Your task to perform on an android device: What's on my calendar today? Image 0: 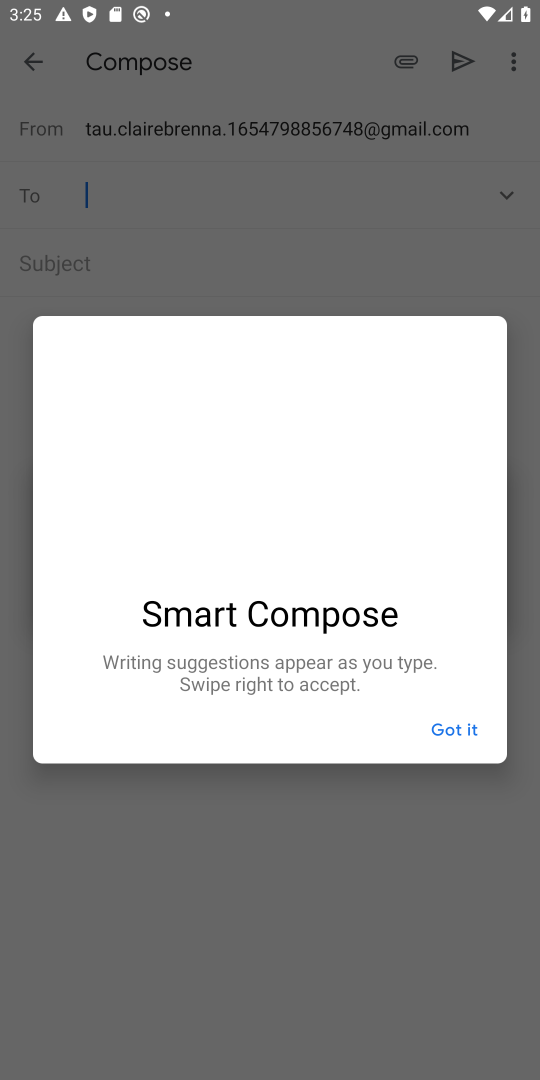
Step 0: press back button
Your task to perform on an android device: What's on my calendar today? Image 1: 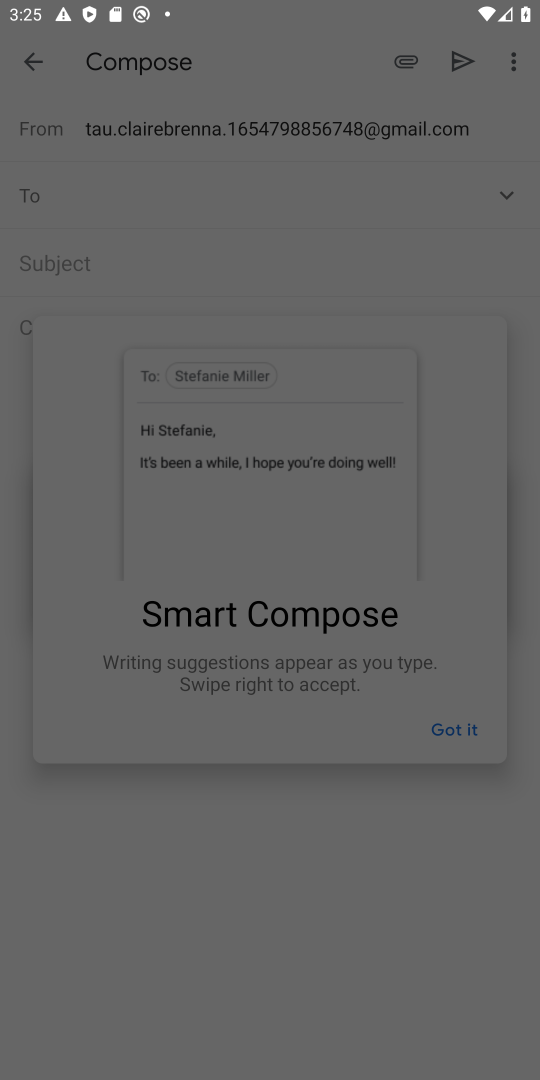
Step 1: press home button
Your task to perform on an android device: What's on my calendar today? Image 2: 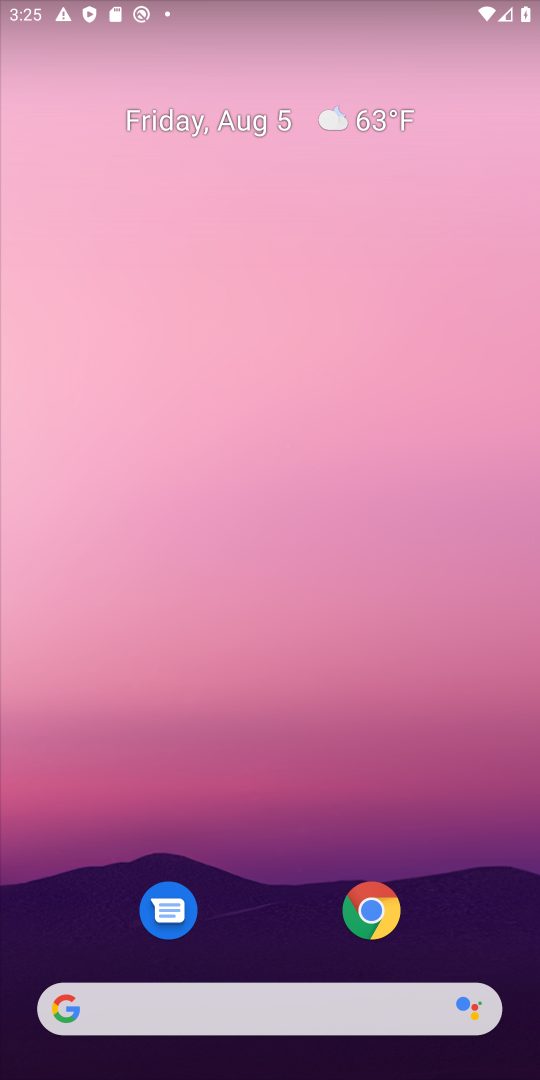
Step 2: drag from (450, 887) to (403, 9)
Your task to perform on an android device: What's on my calendar today? Image 3: 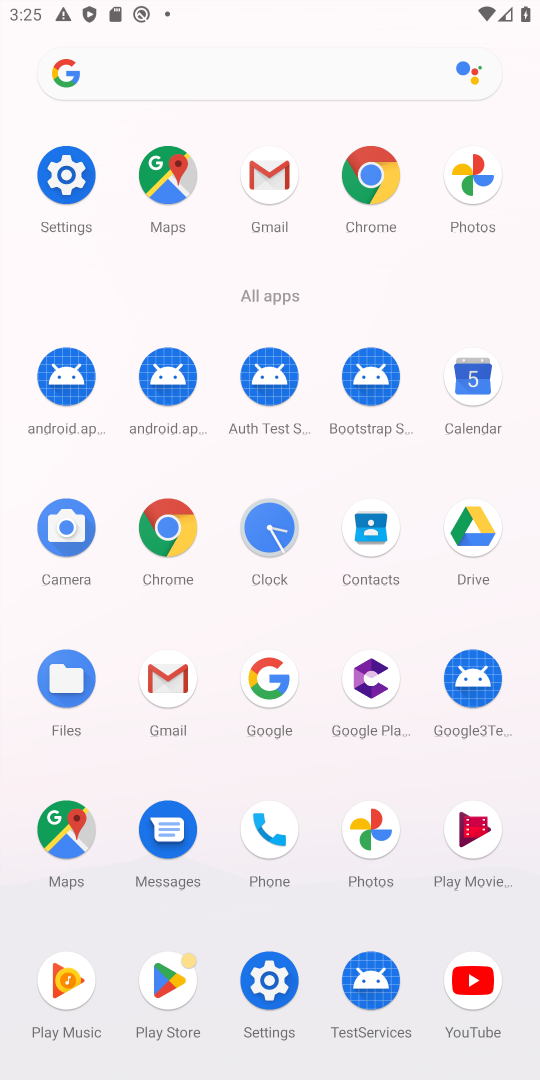
Step 3: click (467, 402)
Your task to perform on an android device: What's on my calendar today? Image 4: 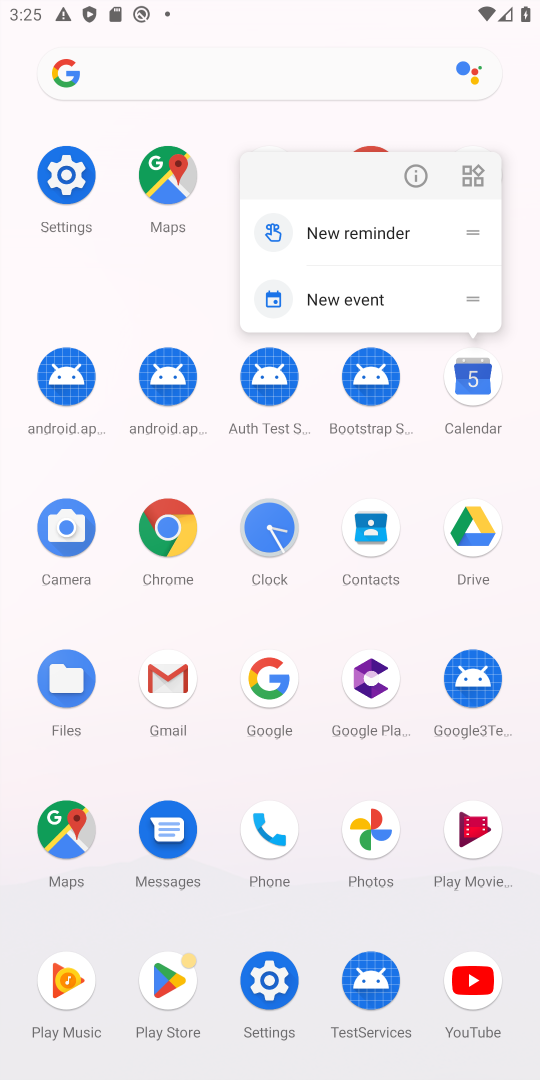
Step 4: click (473, 384)
Your task to perform on an android device: What's on my calendar today? Image 5: 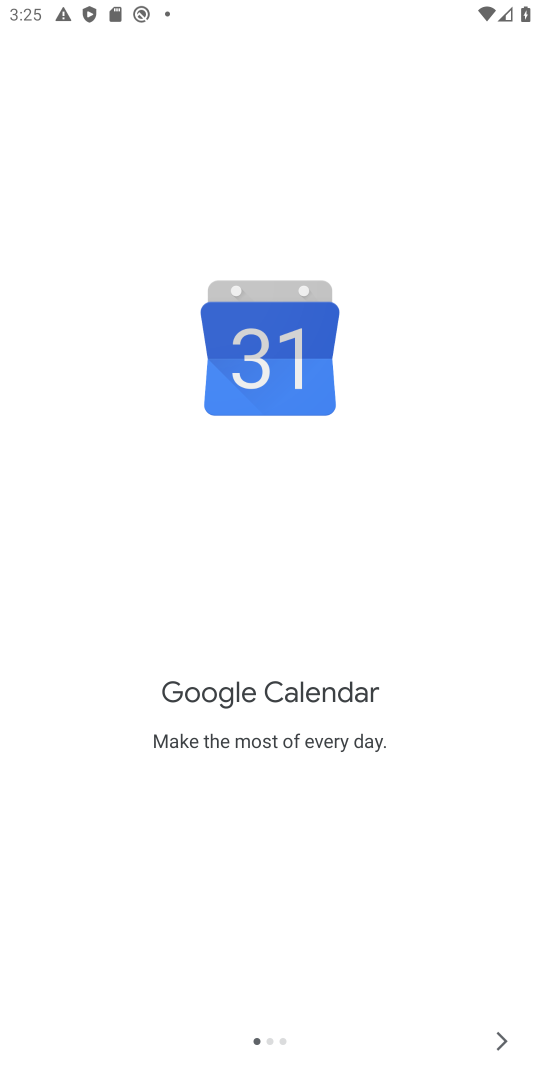
Step 5: click (496, 1052)
Your task to perform on an android device: What's on my calendar today? Image 6: 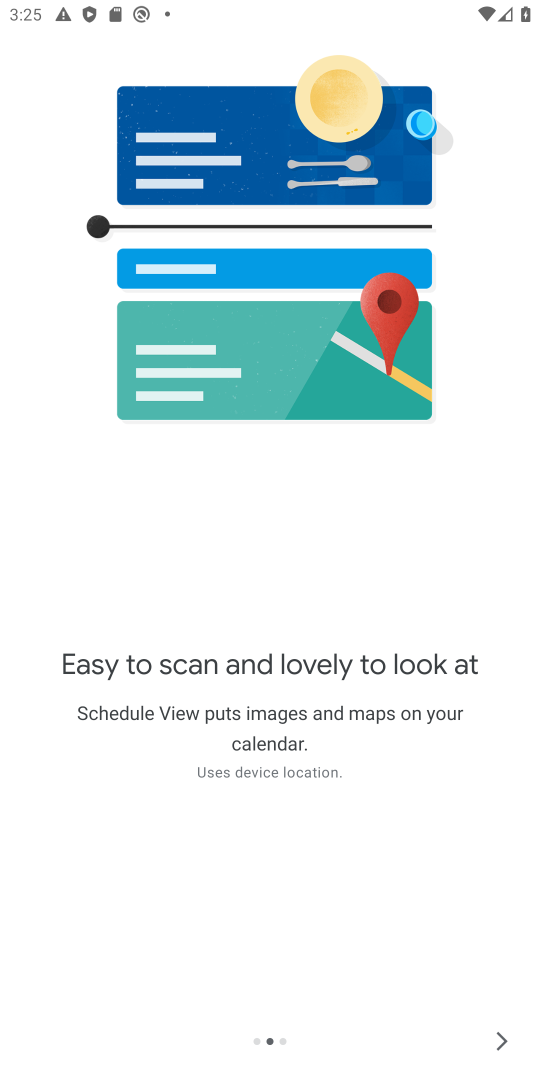
Step 6: click (500, 1039)
Your task to perform on an android device: What's on my calendar today? Image 7: 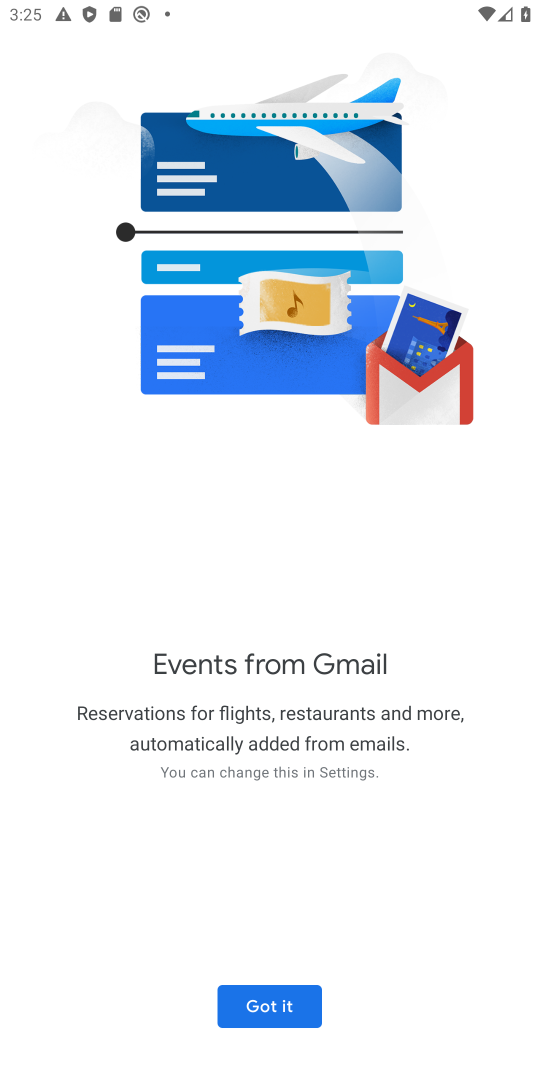
Step 7: click (258, 1017)
Your task to perform on an android device: What's on my calendar today? Image 8: 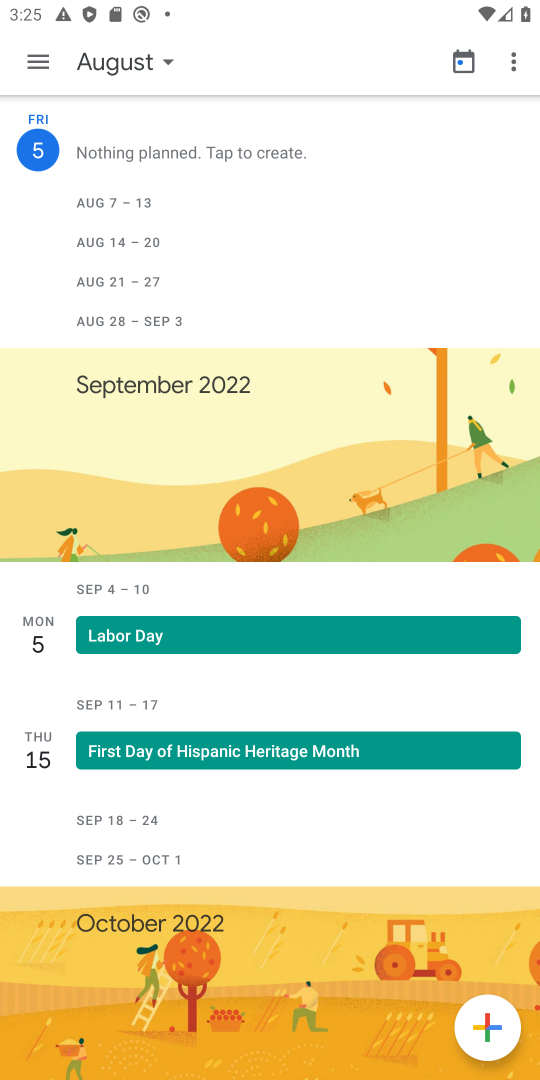
Step 8: click (43, 65)
Your task to perform on an android device: What's on my calendar today? Image 9: 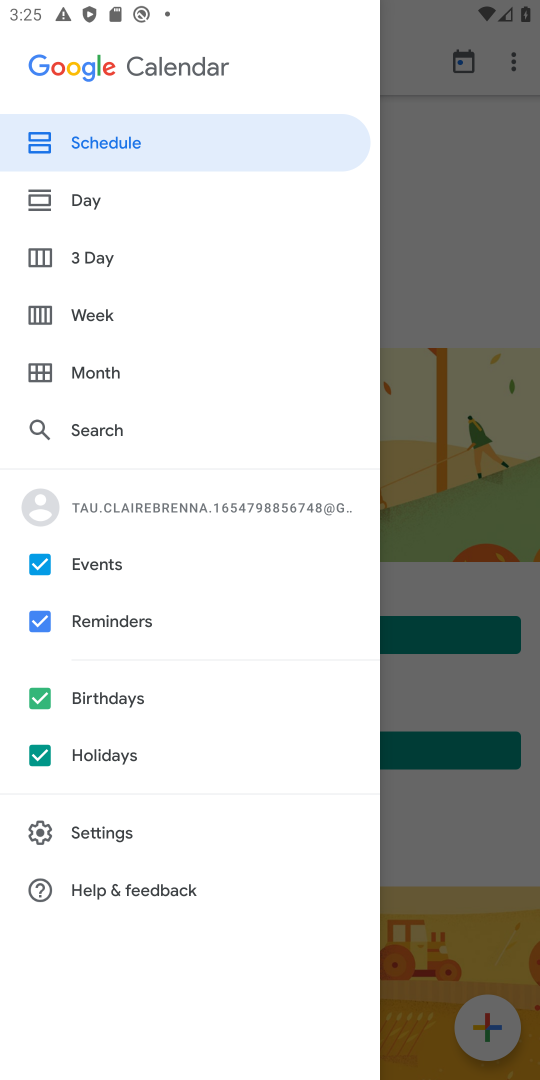
Step 9: click (108, 196)
Your task to perform on an android device: What's on my calendar today? Image 10: 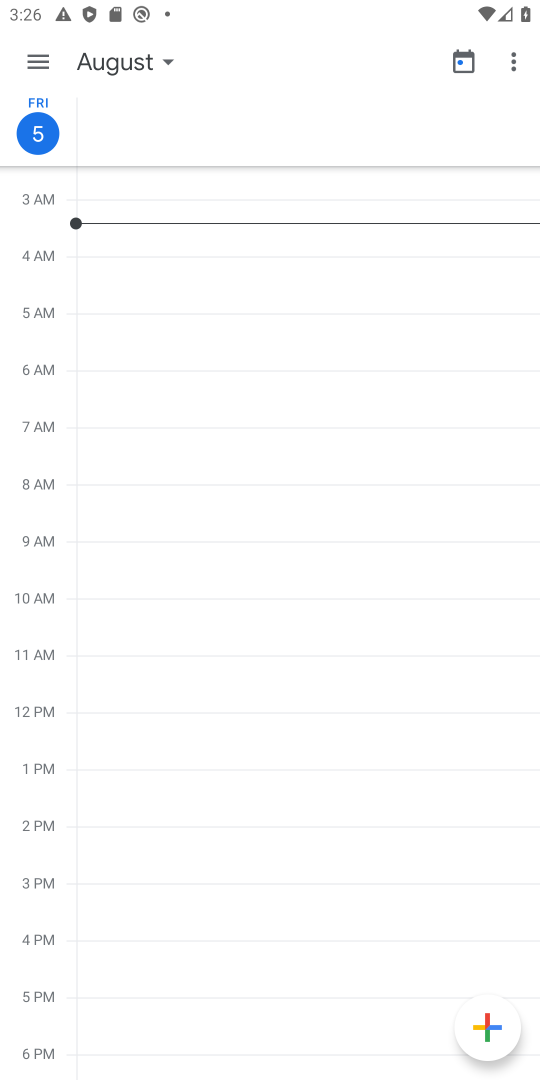
Step 10: task complete